Your task to perform on an android device: change the upload size in google photos Image 0: 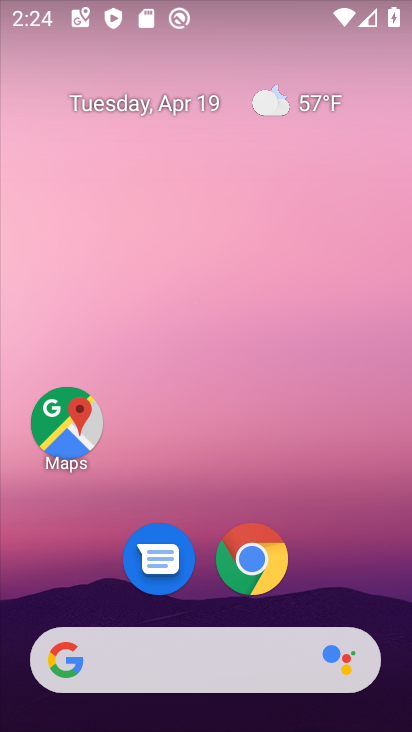
Step 0: drag from (206, 609) to (216, 70)
Your task to perform on an android device: change the upload size in google photos Image 1: 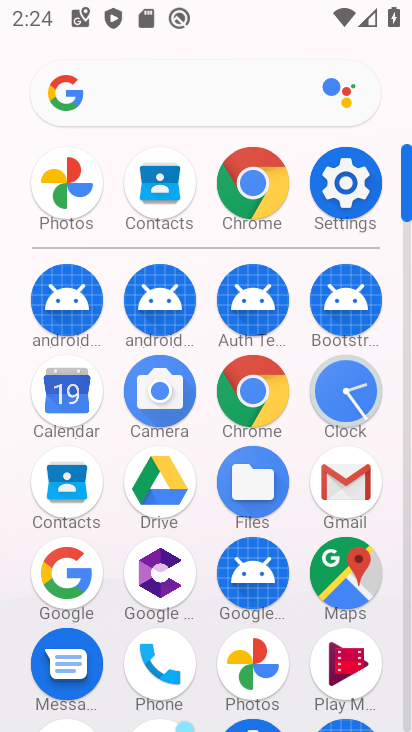
Step 1: click (246, 649)
Your task to perform on an android device: change the upload size in google photos Image 2: 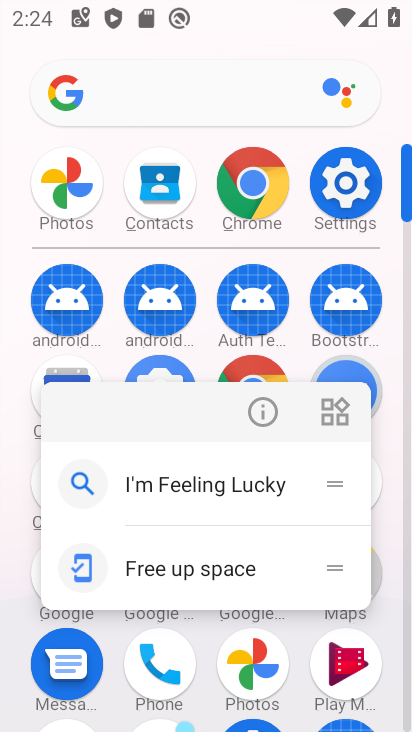
Step 2: click (250, 651)
Your task to perform on an android device: change the upload size in google photos Image 3: 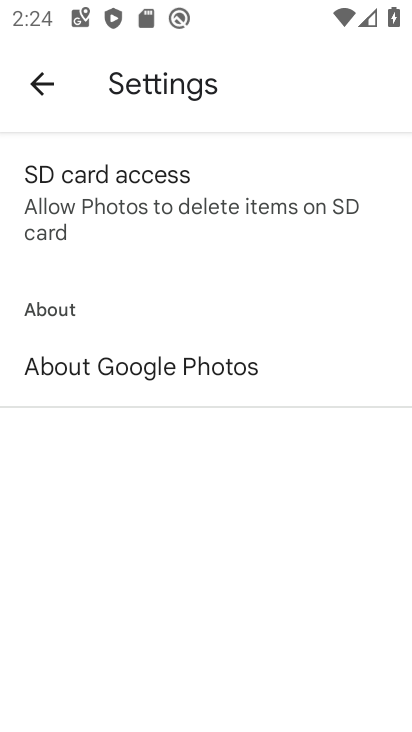
Step 3: press home button
Your task to perform on an android device: change the upload size in google photos Image 4: 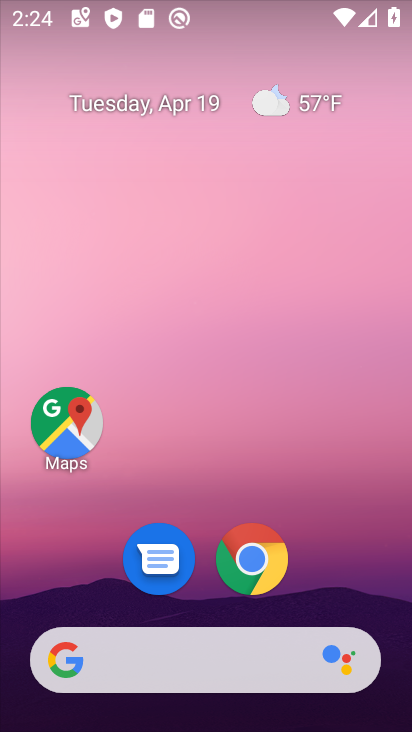
Step 4: drag from (209, 487) to (212, 52)
Your task to perform on an android device: change the upload size in google photos Image 5: 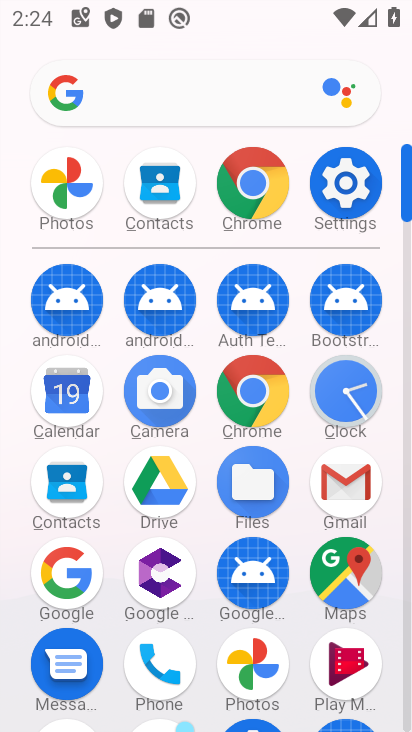
Step 5: click (64, 178)
Your task to perform on an android device: change the upload size in google photos Image 6: 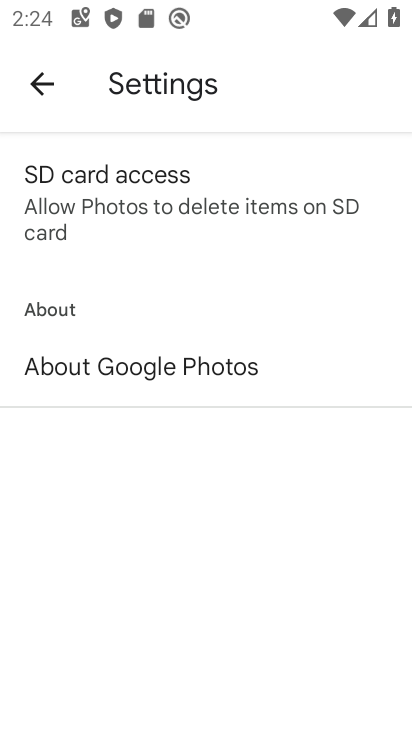
Step 6: click (50, 85)
Your task to perform on an android device: change the upload size in google photos Image 7: 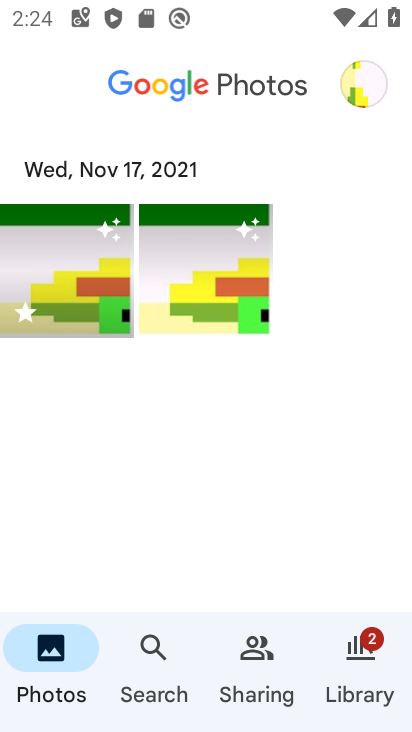
Step 7: click (368, 83)
Your task to perform on an android device: change the upload size in google photos Image 8: 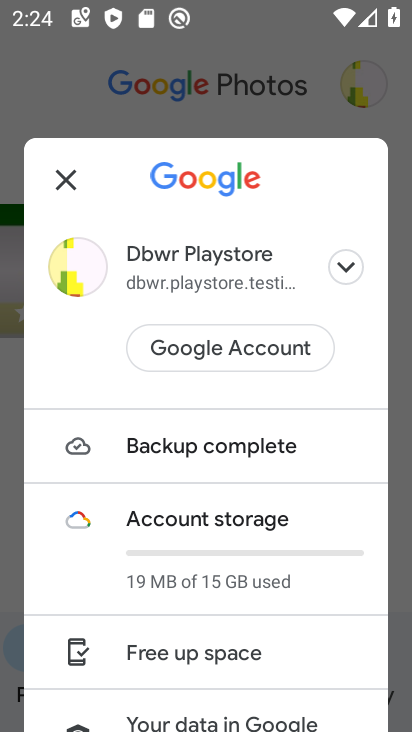
Step 8: click (176, 456)
Your task to perform on an android device: change the upload size in google photos Image 9: 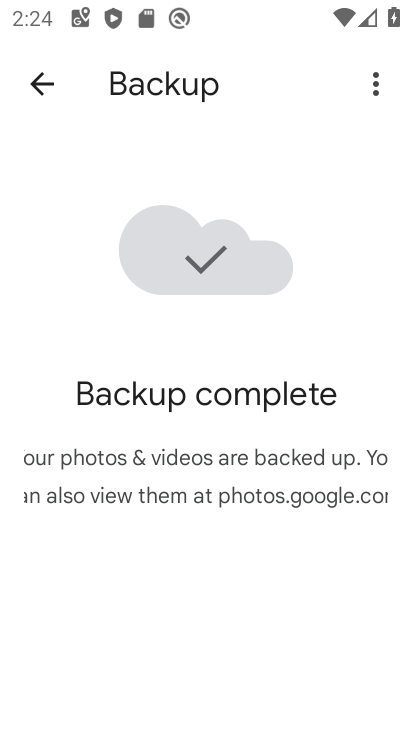
Step 9: click (378, 81)
Your task to perform on an android device: change the upload size in google photos Image 10: 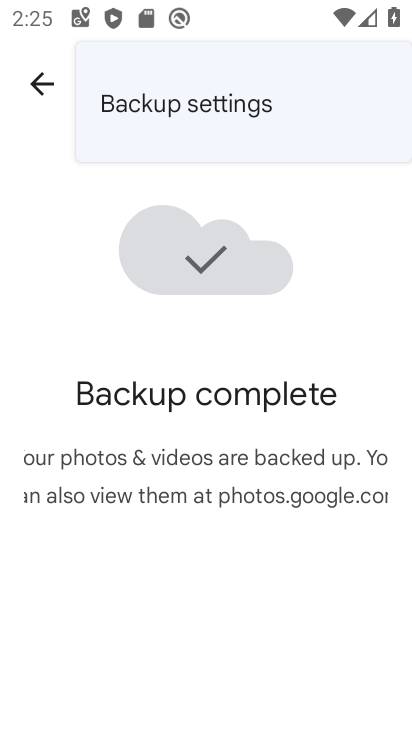
Step 10: click (212, 127)
Your task to perform on an android device: change the upload size in google photos Image 11: 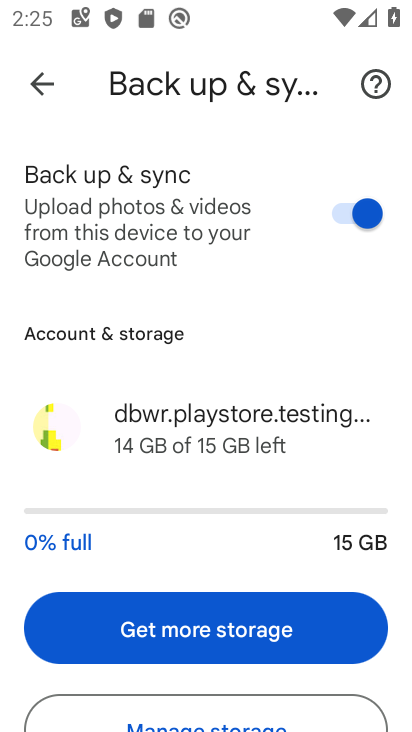
Step 11: drag from (197, 547) to (210, 115)
Your task to perform on an android device: change the upload size in google photos Image 12: 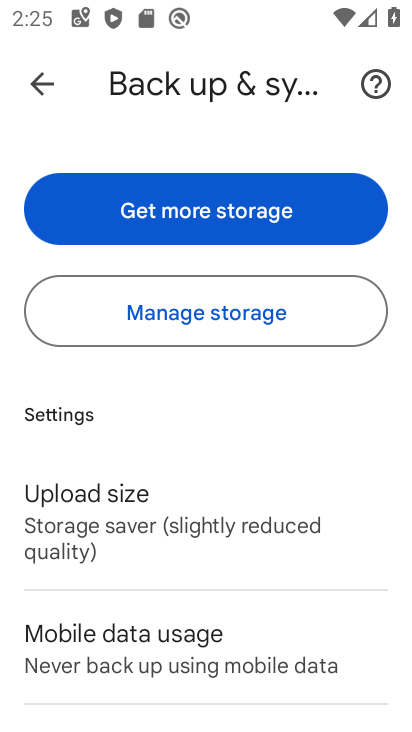
Step 12: click (150, 542)
Your task to perform on an android device: change the upload size in google photos Image 13: 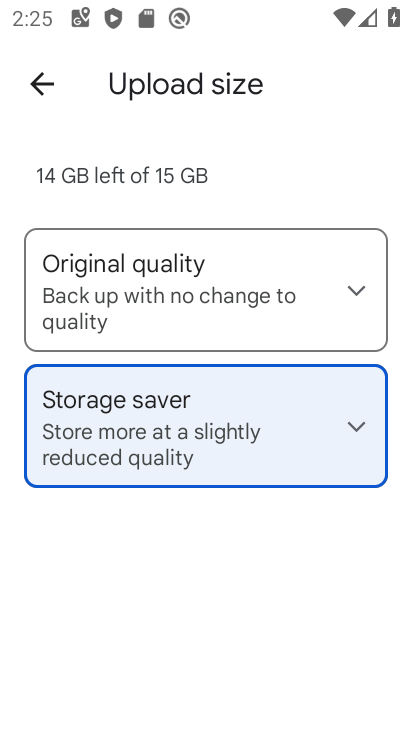
Step 13: click (241, 266)
Your task to perform on an android device: change the upload size in google photos Image 14: 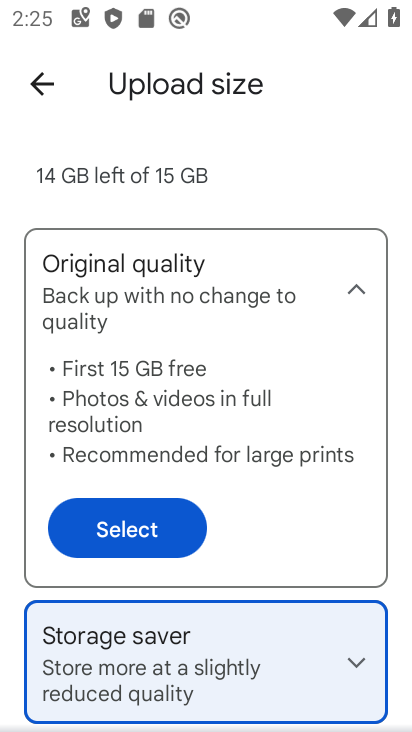
Step 14: click (139, 521)
Your task to perform on an android device: change the upload size in google photos Image 15: 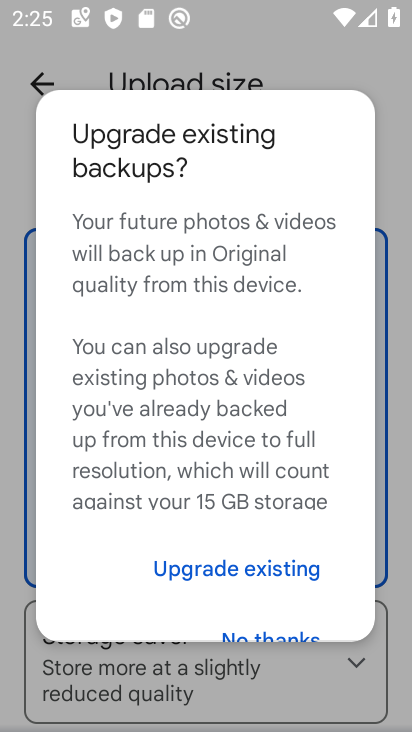
Step 15: click (230, 572)
Your task to perform on an android device: change the upload size in google photos Image 16: 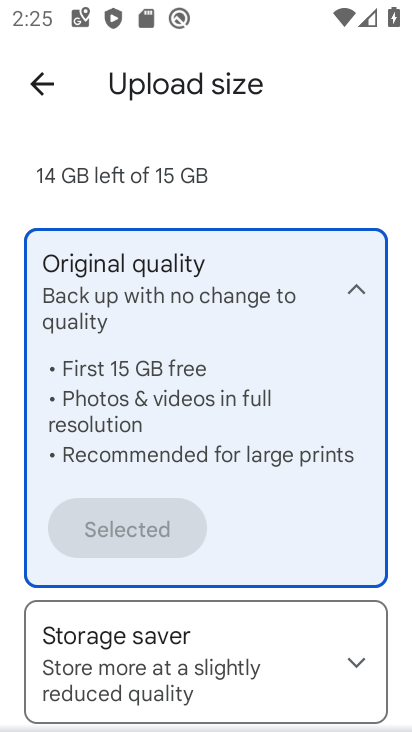
Step 16: task complete